Your task to perform on an android device: Go to Yahoo.com Image 0: 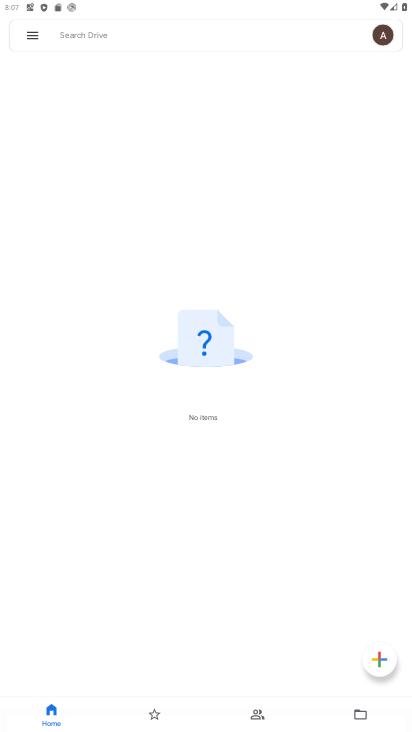
Step 0: press home button
Your task to perform on an android device: Go to Yahoo.com Image 1: 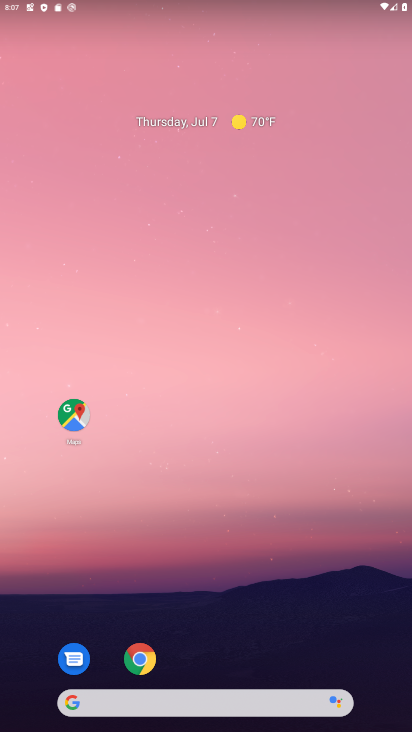
Step 1: drag from (174, 671) to (258, 173)
Your task to perform on an android device: Go to Yahoo.com Image 2: 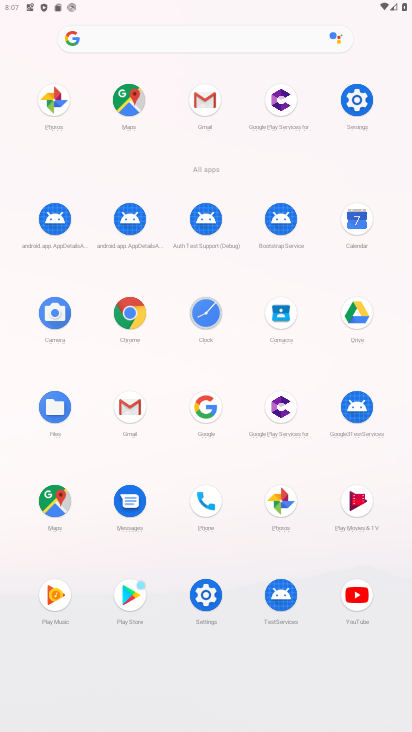
Step 2: click (134, 310)
Your task to perform on an android device: Go to Yahoo.com Image 3: 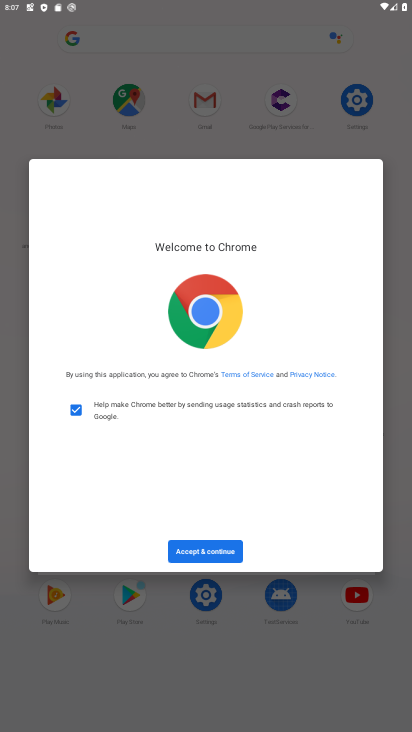
Step 3: click (216, 553)
Your task to perform on an android device: Go to Yahoo.com Image 4: 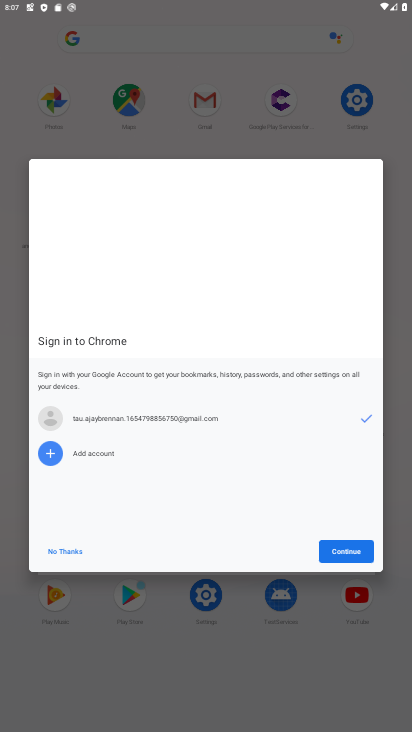
Step 4: click (355, 556)
Your task to perform on an android device: Go to Yahoo.com Image 5: 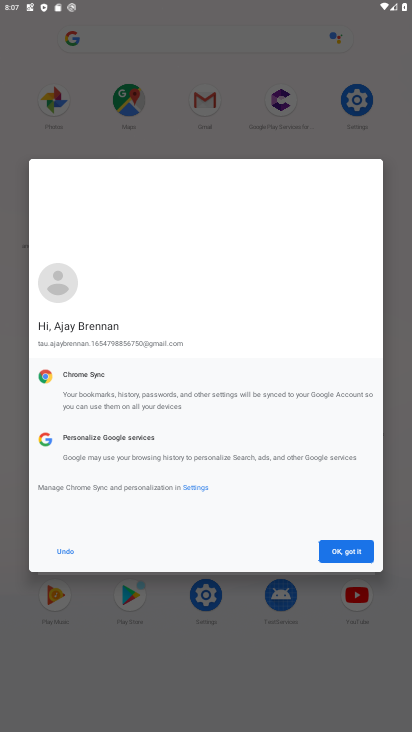
Step 5: click (356, 556)
Your task to perform on an android device: Go to Yahoo.com Image 6: 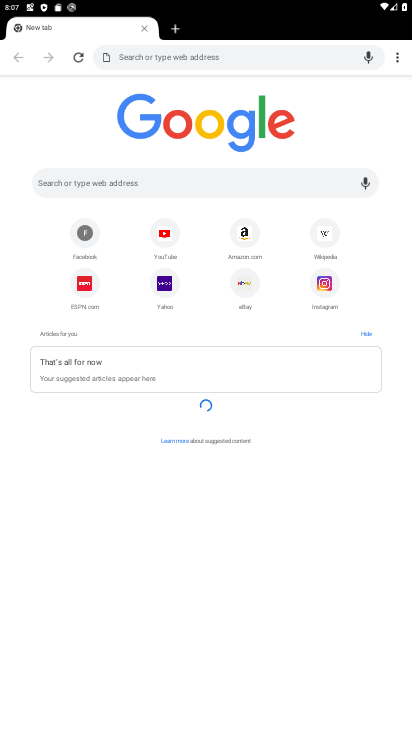
Step 6: click (170, 290)
Your task to perform on an android device: Go to Yahoo.com Image 7: 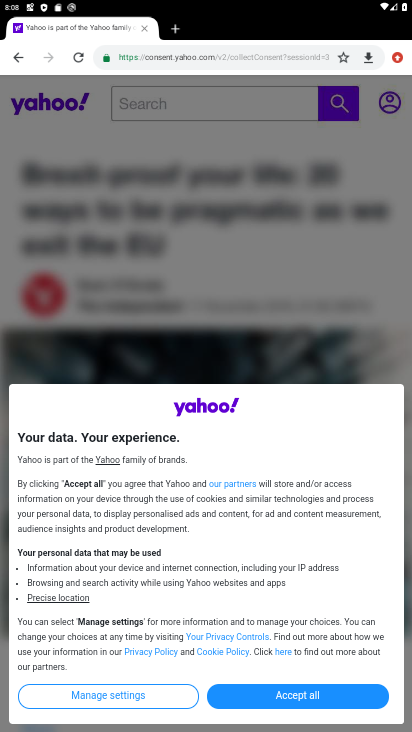
Step 7: click (299, 689)
Your task to perform on an android device: Go to Yahoo.com Image 8: 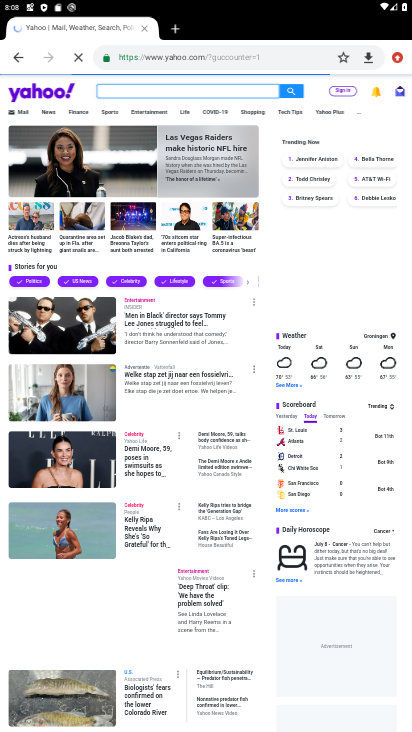
Step 8: task complete